Your task to perform on an android device: turn off notifications settings in the gmail app Image 0: 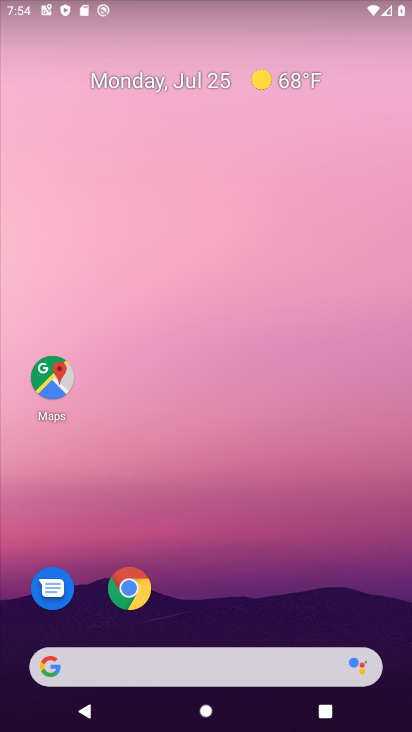
Step 0: drag from (361, 558) to (365, 75)
Your task to perform on an android device: turn off notifications settings in the gmail app Image 1: 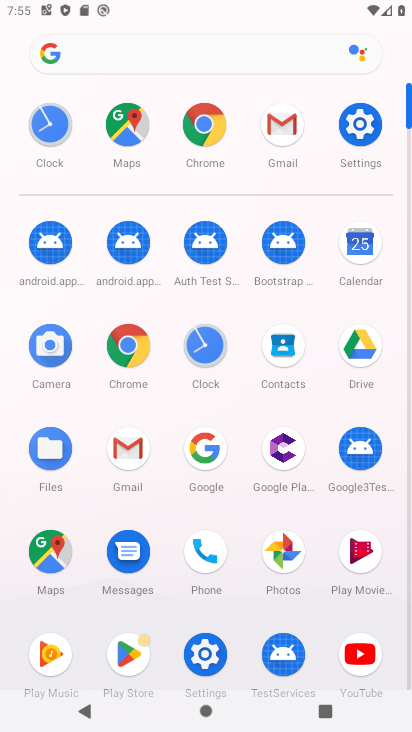
Step 1: click (278, 135)
Your task to perform on an android device: turn off notifications settings in the gmail app Image 2: 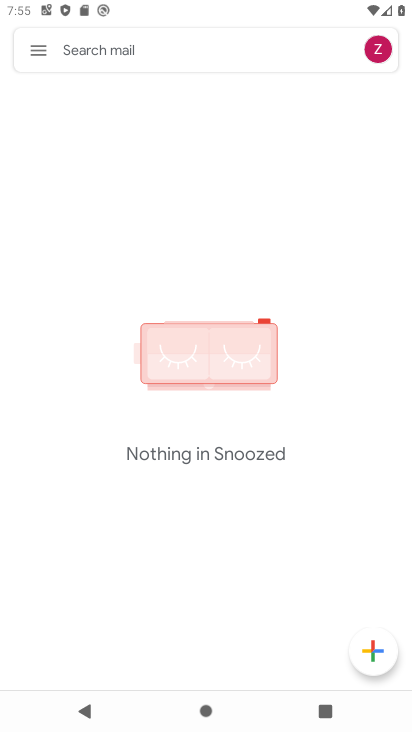
Step 2: click (34, 53)
Your task to perform on an android device: turn off notifications settings in the gmail app Image 3: 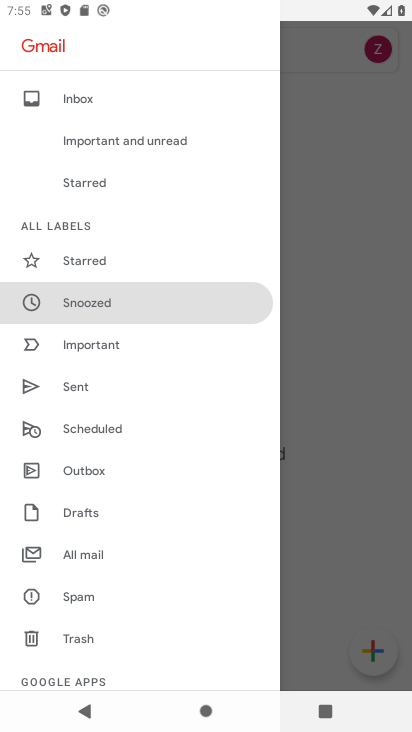
Step 3: drag from (193, 437) to (202, 369)
Your task to perform on an android device: turn off notifications settings in the gmail app Image 4: 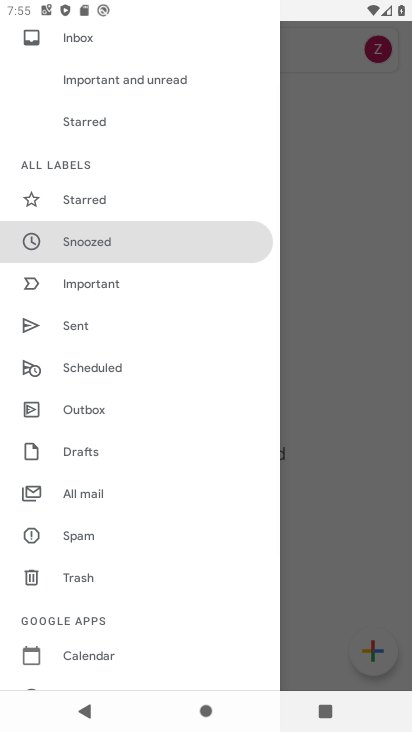
Step 4: drag from (202, 466) to (206, 391)
Your task to perform on an android device: turn off notifications settings in the gmail app Image 5: 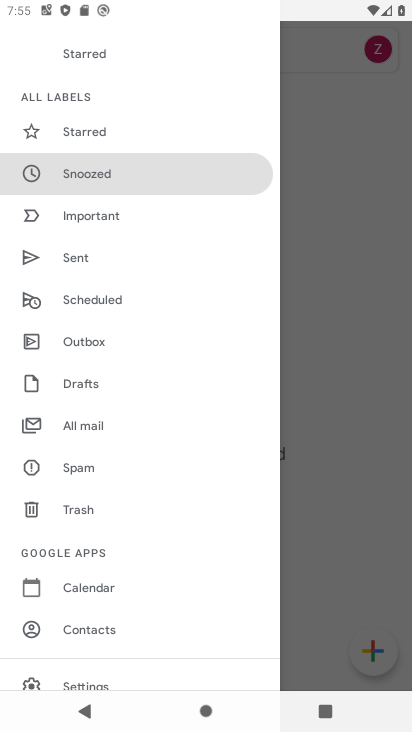
Step 5: drag from (197, 470) to (201, 399)
Your task to perform on an android device: turn off notifications settings in the gmail app Image 6: 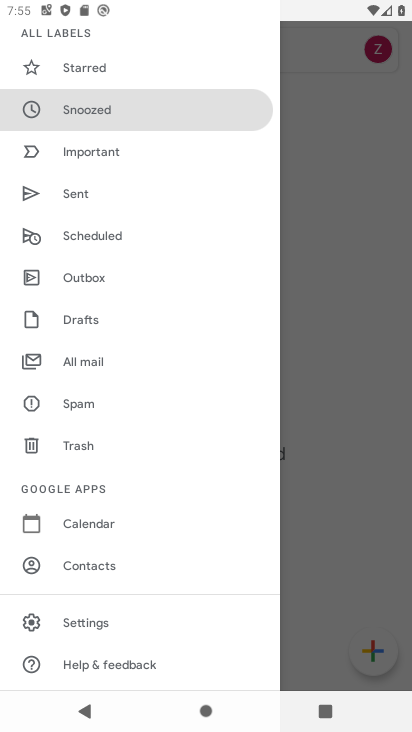
Step 6: drag from (197, 484) to (197, 396)
Your task to perform on an android device: turn off notifications settings in the gmail app Image 7: 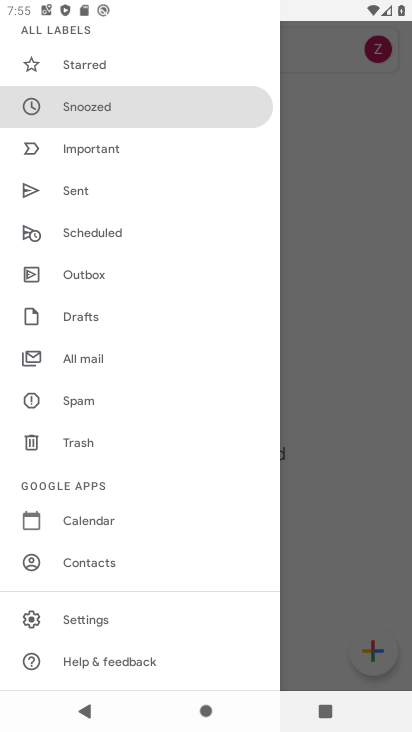
Step 7: click (206, 609)
Your task to perform on an android device: turn off notifications settings in the gmail app Image 8: 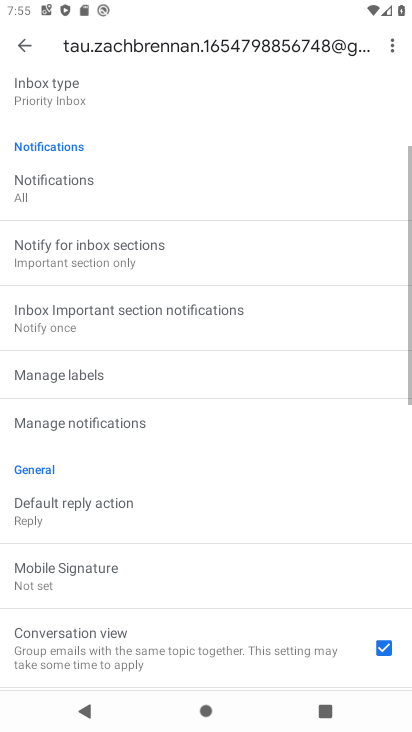
Step 8: drag from (233, 537) to (236, 465)
Your task to perform on an android device: turn off notifications settings in the gmail app Image 9: 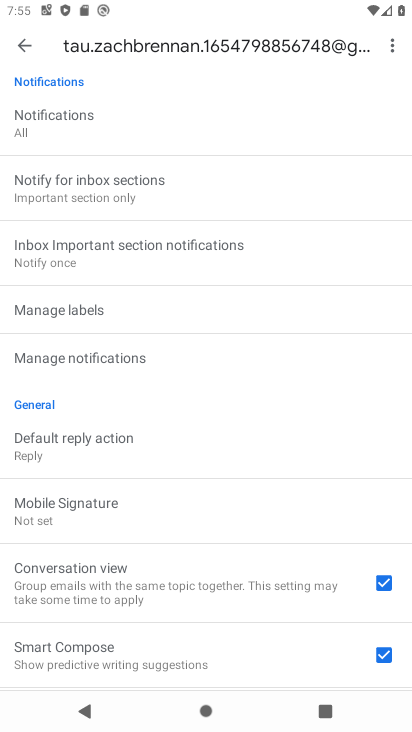
Step 9: click (209, 350)
Your task to perform on an android device: turn off notifications settings in the gmail app Image 10: 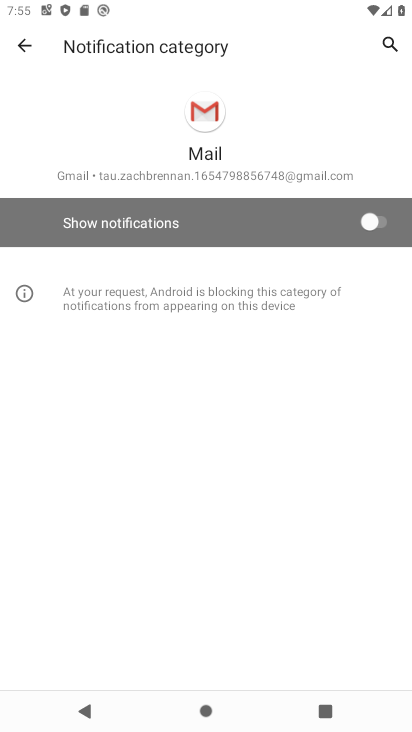
Step 10: task complete